Your task to perform on an android device: Go to Yahoo.com Image 0: 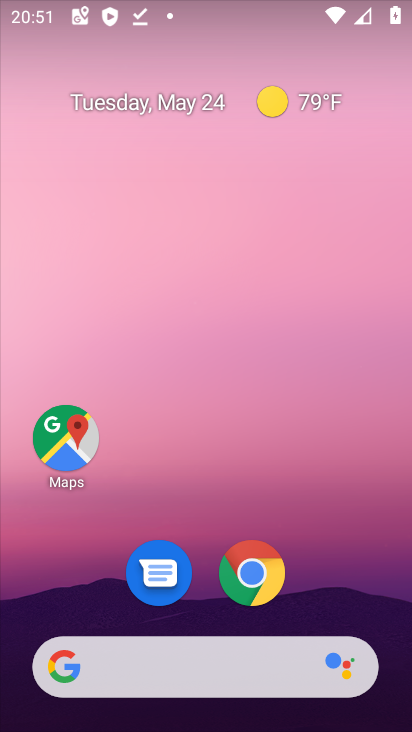
Step 0: drag from (250, 264) to (240, 170)
Your task to perform on an android device: Go to Yahoo.com Image 1: 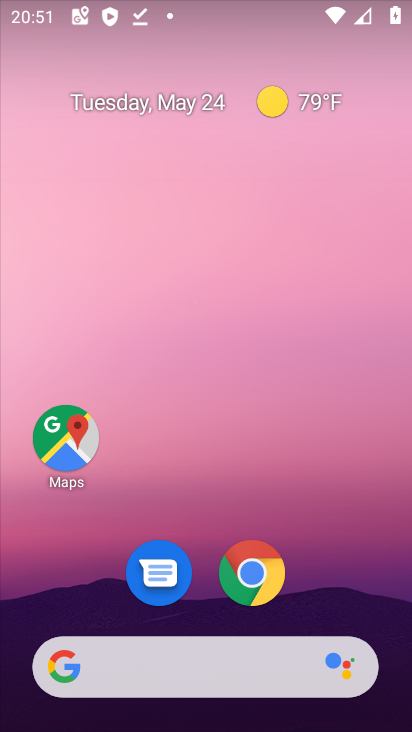
Step 1: drag from (285, 624) to (235, 147)
Your task to perform on an android device: Go to Yahoo.com Image 2: 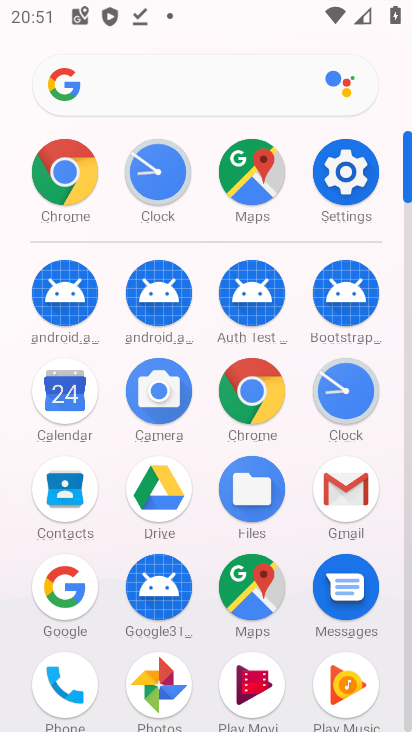
Step 2: click (56, 178)
Your task to perform on an android device: Go to Yahoo.com Image 3: 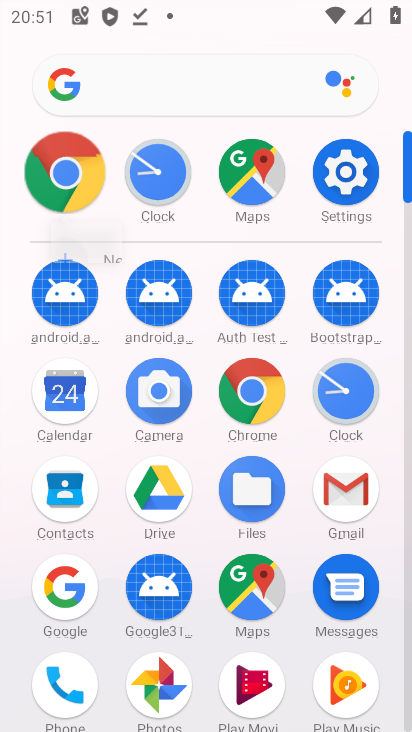
Step 3: click (61, 172)
Your task to perform on an android device: Go to Yahoo.com Image 4: 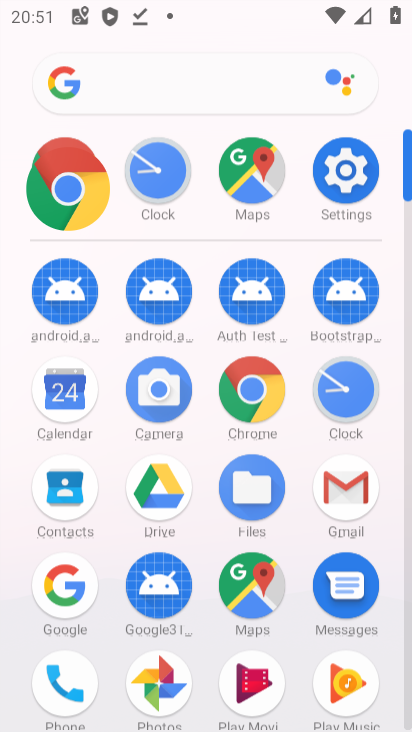
Step 4: click (61, 170)
Your task to perform on an android device: Go to Yahoo.com Image 5: 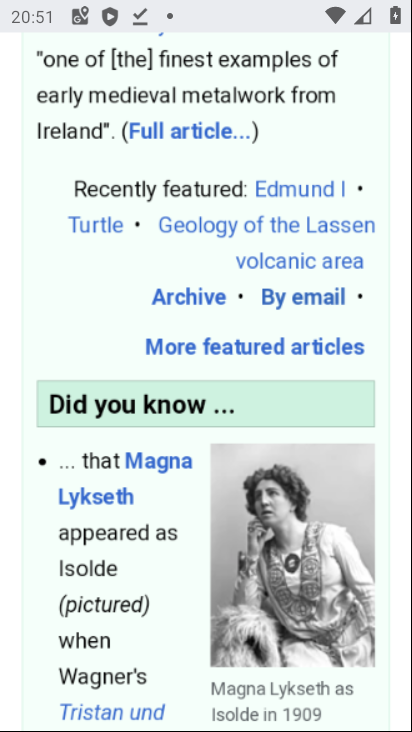
Step 5: click (65, 168)
Your task to perform on an android device: Go to Yahoo.com Image 6: 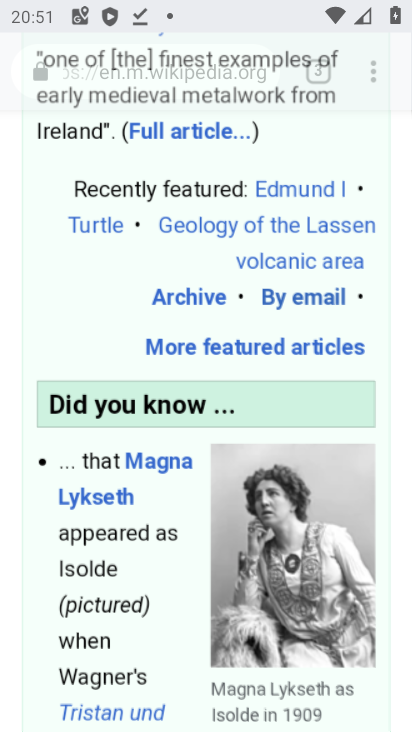
Step 6: click (65, 168)
Your task to perform on an android device: Go to Yahoo.com Image 7: 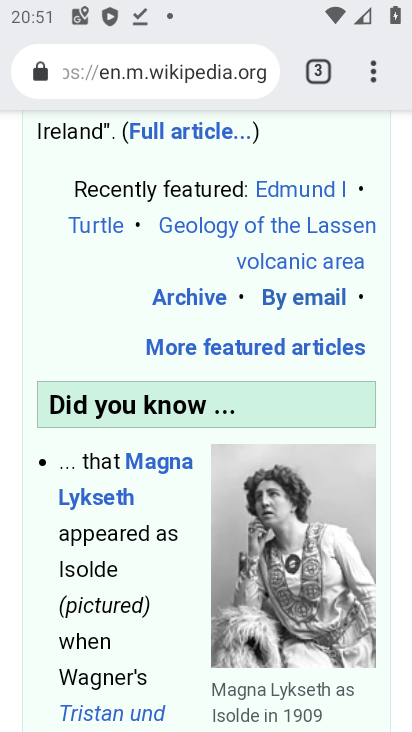
Step 7: drag from (258, 349) to (197, 478)
Your task to perform on an android device: Go to Yahoo.com Image 8: 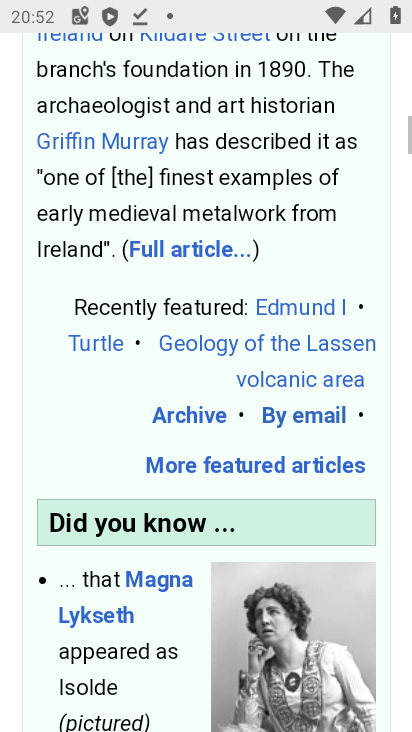
Step 8: drag from (157, 168) to (203, 439)
Your task to perform on an android device: Go to Yahoo.com Image 9: 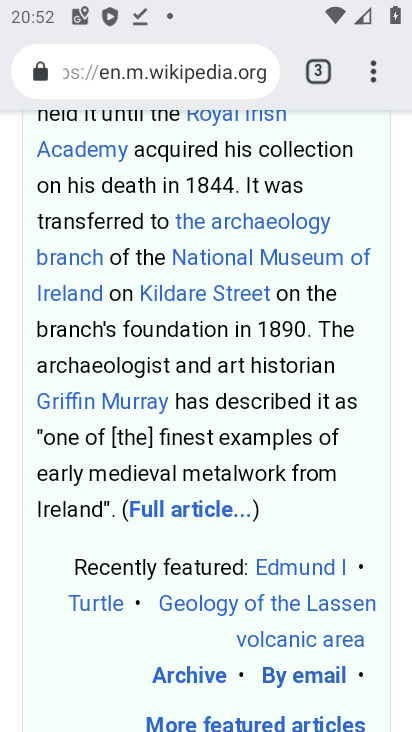
Step 9: drag from (373, 72) to (129, 141)
Your task to perform on an android device: Go to Yahoo.com Image 10: 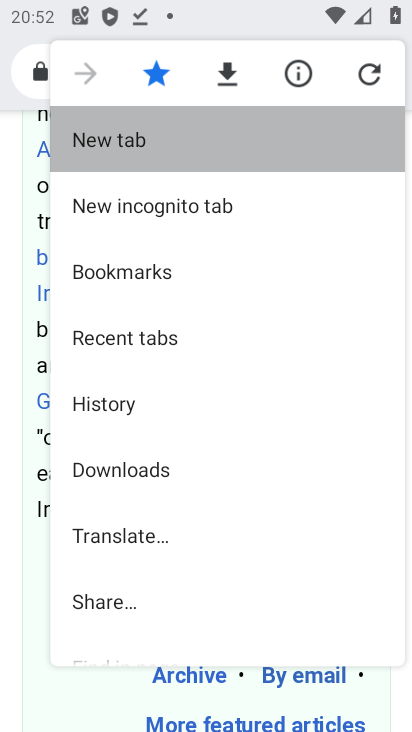
Step 10: click (129, 141)
Your task to perform on an android device: Go to Yahoo.com Image 11: 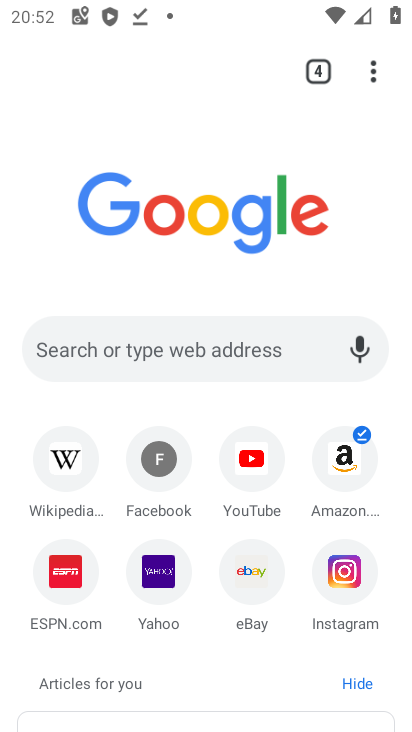
Step 11: click (147, 575)
Your task to perform on an android device: Go to Yahoo.com Image 12: 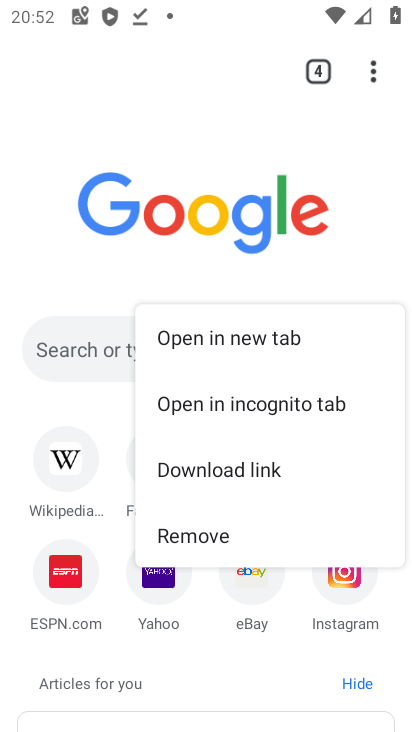
Step 12: click (147, 575)
Your task to perform on an android device: Go to Yahoo.com Image 13: 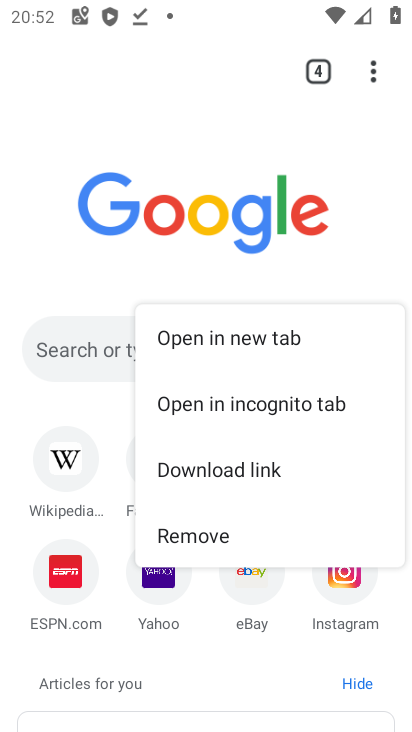
Step 13: click (147, 575)
Your task to perform on an android device: Go to Yahoo.com Image 14: 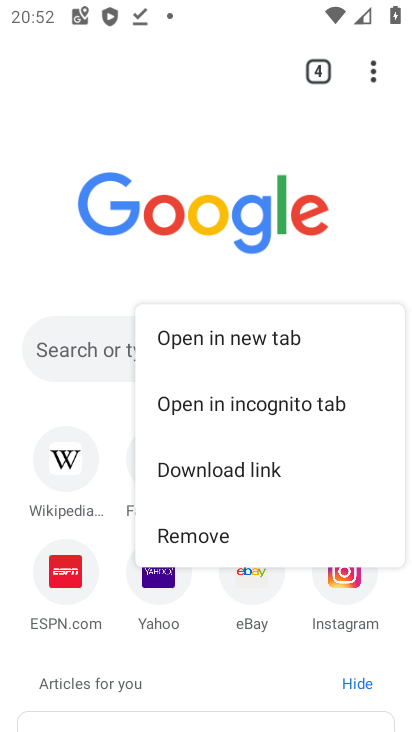
Step 14: click (153, 576)
Your task to perform on an android device: Go to Yahoo.com Image 15: 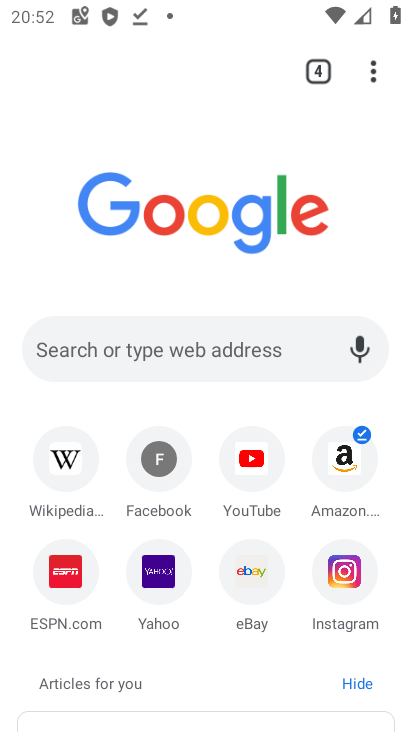
Step 15: click (154, 577)
Your task to perform on an android device: Go to Yahoo.com Image 16: 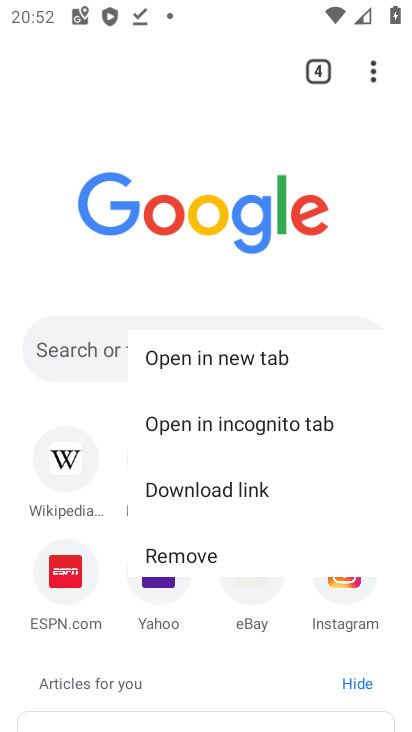
Step 16: click (154, 577)
Your task to perform on an android device: Go to Yahoo.com Image 17: 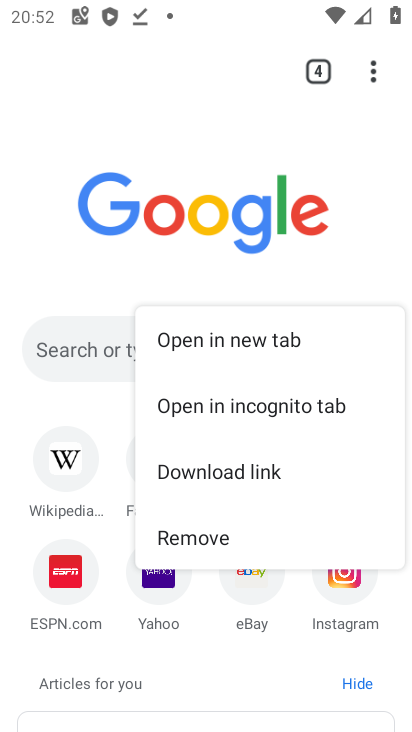
Step 17: click (154, 577)
Your task to perform on an android device: Go to Yahoo.com Image 18: 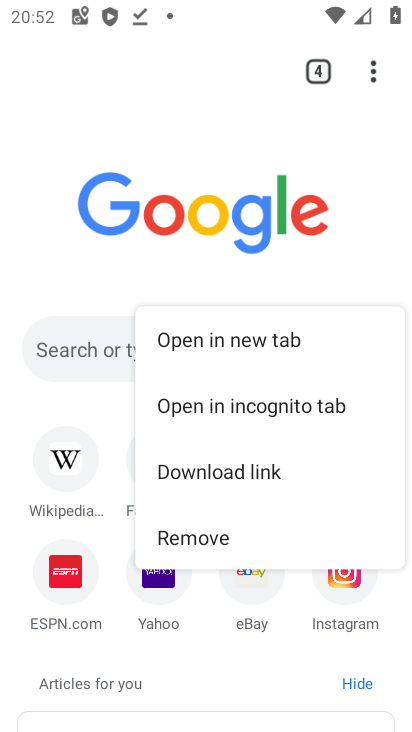
Step 18: click (154, 577)
Your task to perform on an android device: Go to Yahoo.com Image 19: 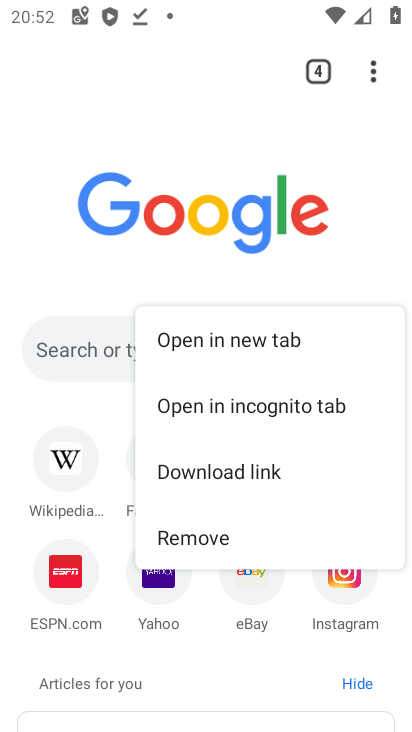
Step 19: click (154, 577)
Your task to perform on an android device: Go to Yahoo.com Image 20: 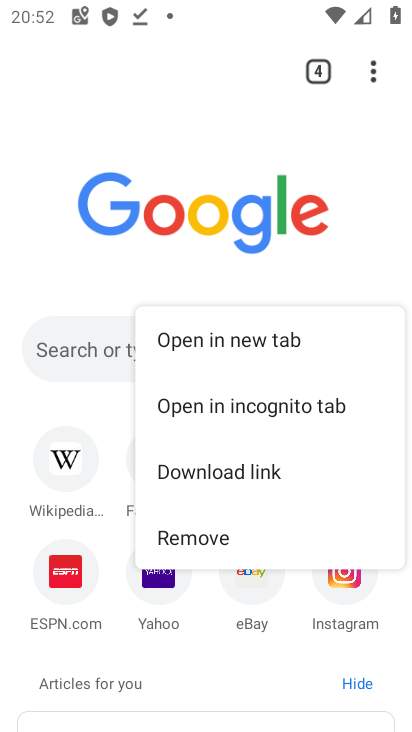
Step 20: click (152, 585)
Your task to perform on an android device: Go to Yahoo.com Image 21: 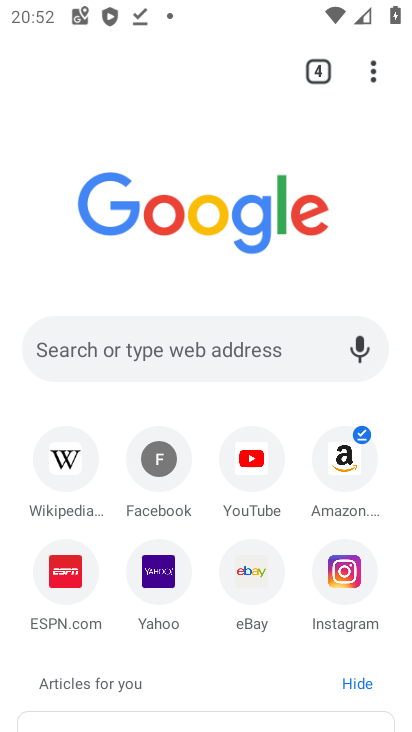
Step 21: click (157, 580)
Your task to perform on an android device: Go to Yahoo.com Image 22: 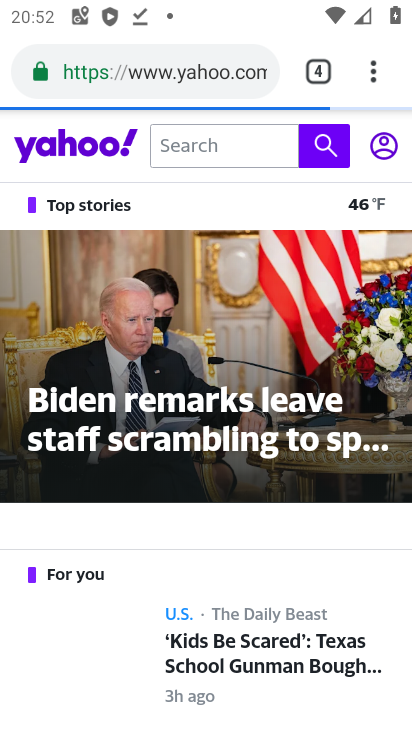
Step 22: task complete